Your task to perform on an android device: change alarm snooze length Image 0: 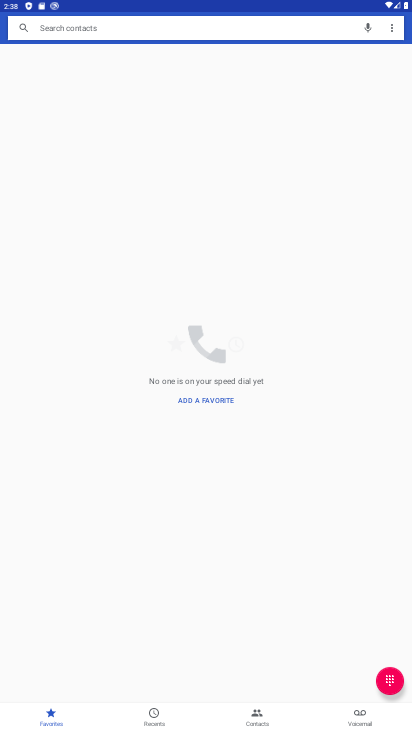
Step 0: press home button
Your task to perform on an android device: change alarm snooze length Image 1: 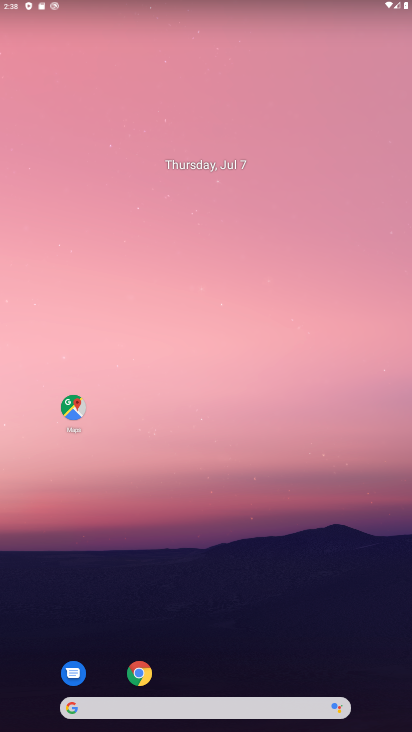
Step 1: drag from (200, 550) to (287, 0)
Your task to perform on an android device: change alarm snooze length Image 2: 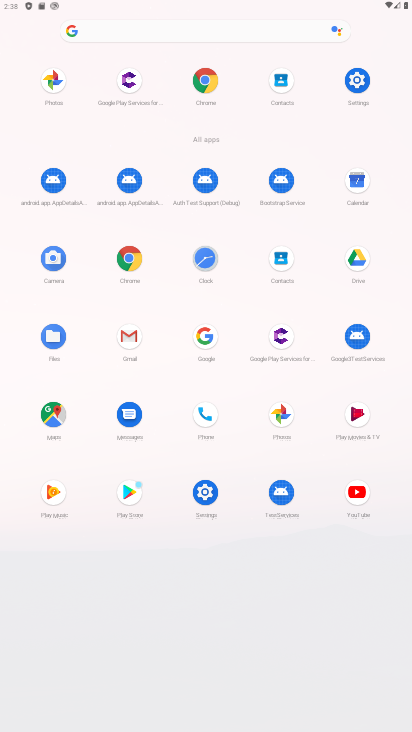
Step 2: click (211, 265)
Your task to perform on an android device: change alarm snooze length Image 3: 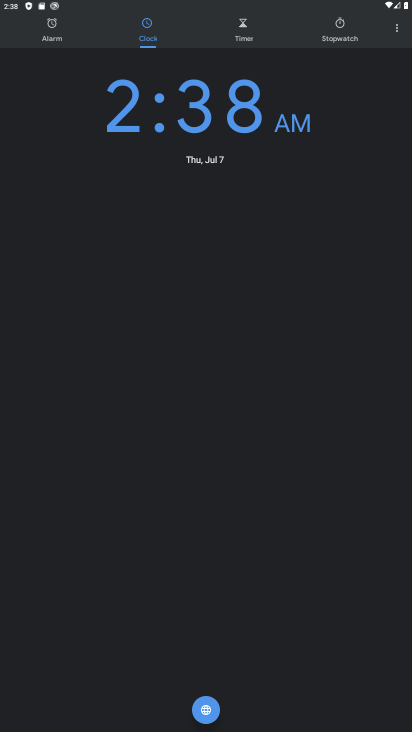
Step 3: click (395, 34)
Your task to perform on an android device: change alarm snooze length Image 4: 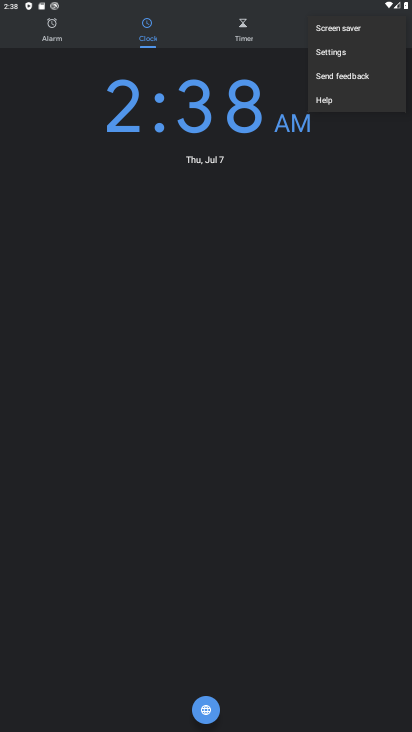
Step 4: click (327, 52)
Your task to perform on an android device: change alarm snooze length Image 5: 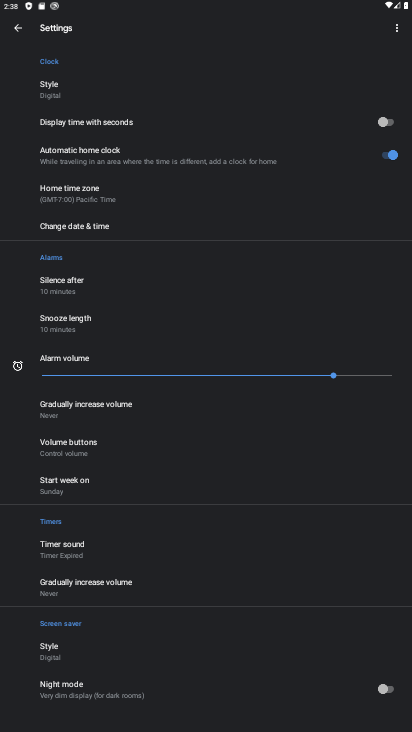
Step 5: click (78, 322)
Your task to perform on an android device: change alarm snooze length Image 6: 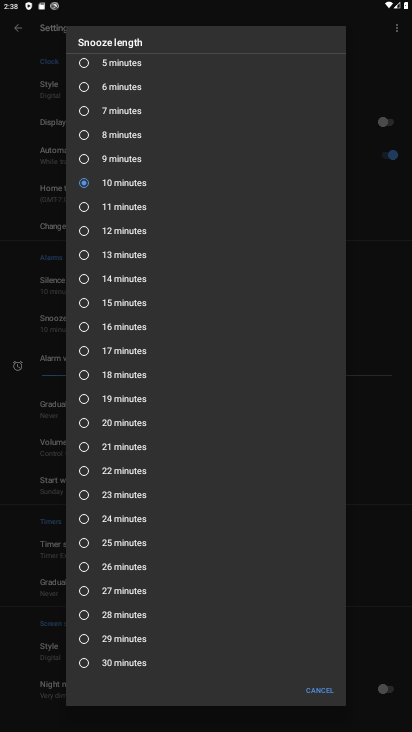
Step 6: click (87, 231)
Your task to perform on an android device: change alarm snooze length Image 7: 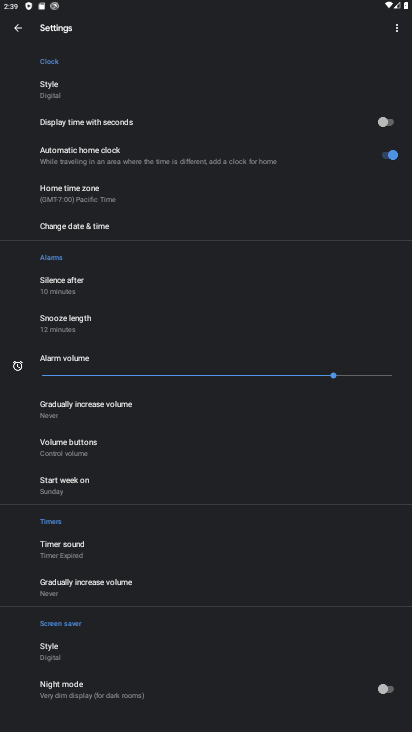
Step 7: task complete